Your task to perform on an android device: Open privacy settings Image 0: 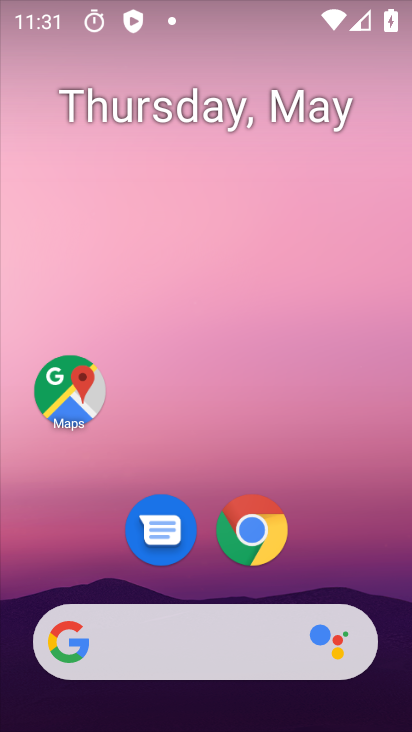
Step 0: drag from (382, 633) to (393, 339)
Your task to perform on an android device: Open privacy settings Image 1: 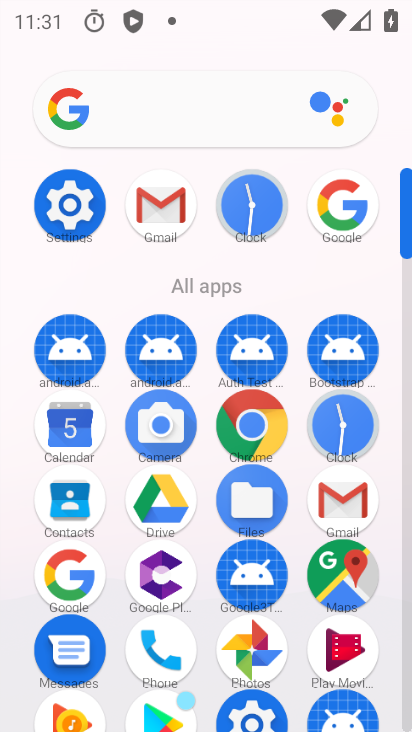
Step 1: click (245, 426)
Your task to perform on an android device: Open privacy settings Image 2: 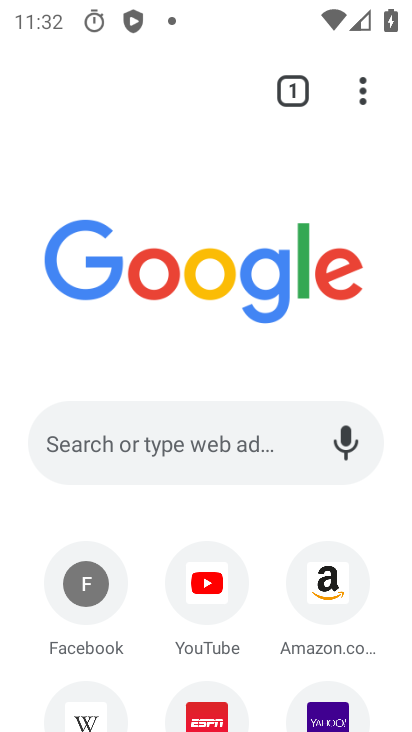
Step 2: click (354, 89)
Your task to perform on an android device: Open privacy settings Image 3: 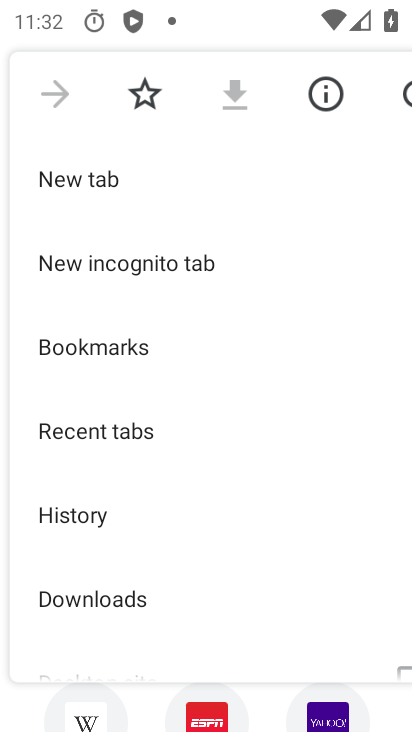
Step 3: drag from (378, 616) to (378, 282)
Your task to perform on an android device: Open privacy settings Image 4: 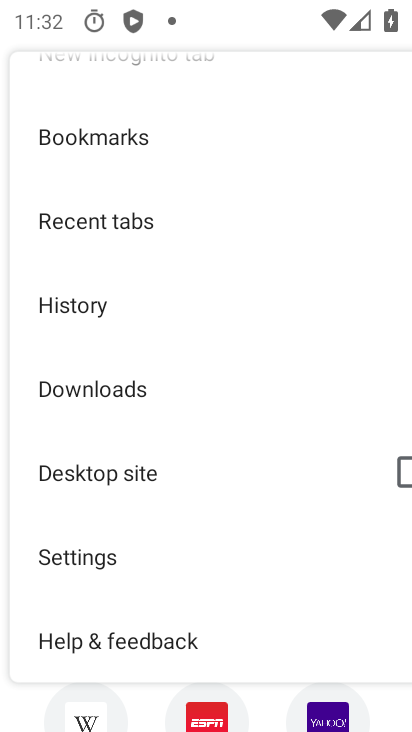
Step 4: drag from (307, 472) to (307, 385)
Your task to perform on an android device: Open privacy settings Image 5: 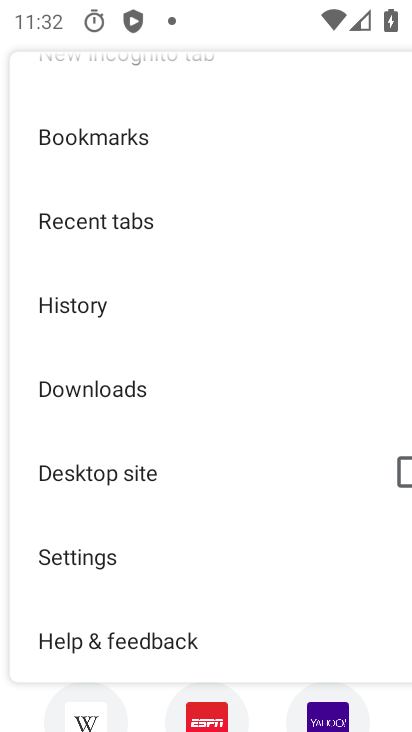
Step 5: drag from (349, 631) to (330, 305)
Your task to perform on an android device: Open privacy settings Image 6: 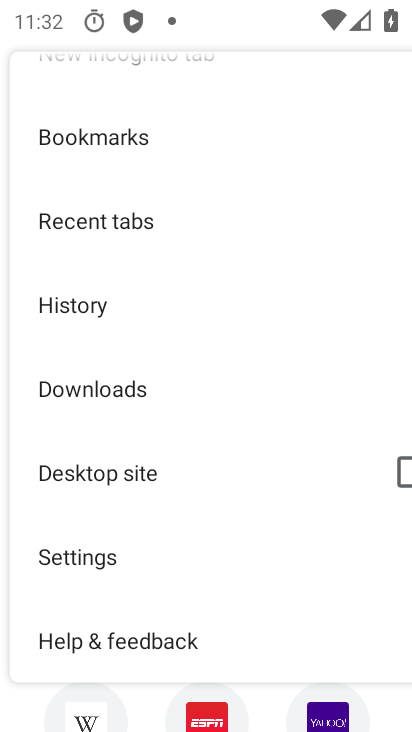
Step 6: drag from (319, 627) to (322, 331)
Your task to perform on an android device: Open privacy settings Image 7: 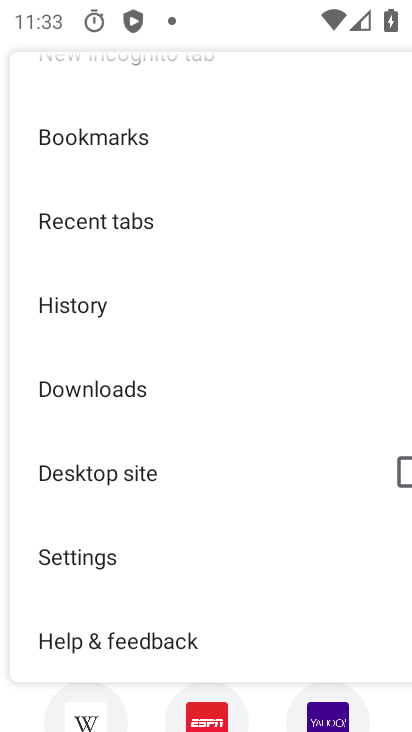
Step 7: drag from (313, 543) to (313, 386)
Your task to perform on an android device: Open privacy settings Image 8: 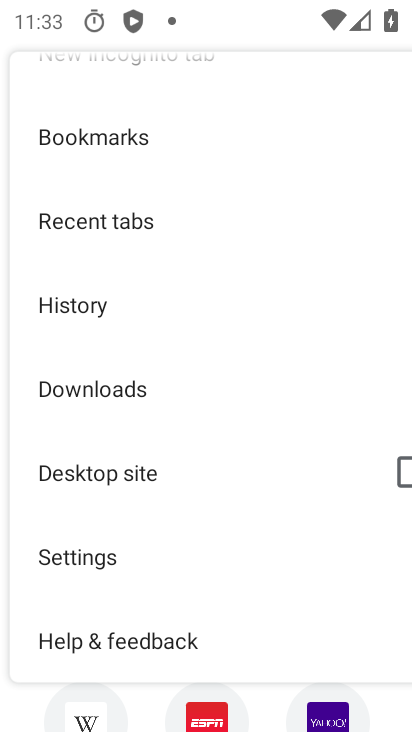
Step 8: drag from (309, 626) to (347, 405)
Your task to perform on an android device: Open privacy settings Image 9: 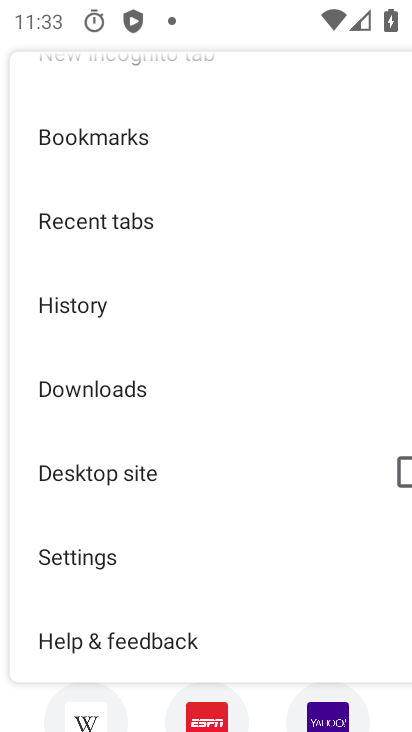
Step 9: click (104, 560)
Your task to perform on an android device: Open privacy settings Image 10: 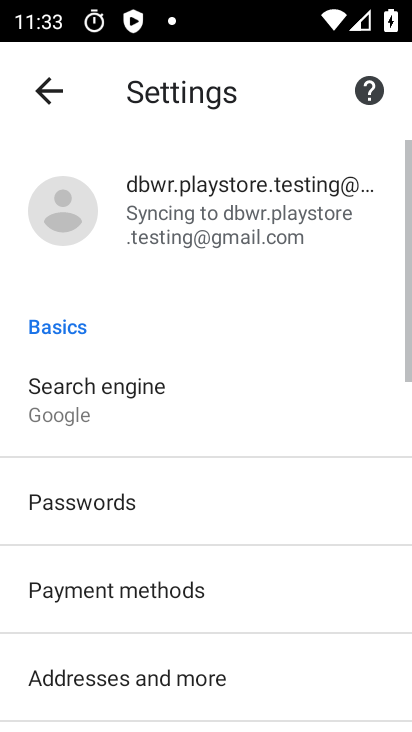
Step 10: drag from (321, 607) to (314, 251)
Your task to perform on an android device: Open privacy settings Image 11: 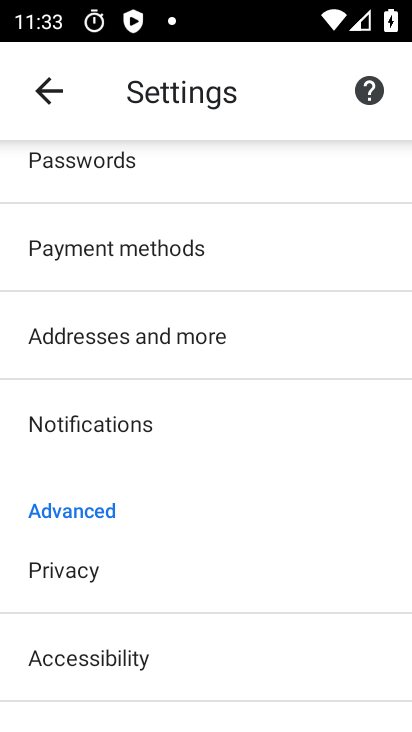
Step 11: drag from (303, 613) to (312, 489)
Your task to perform on an android device: Open privacy settings Image 12: 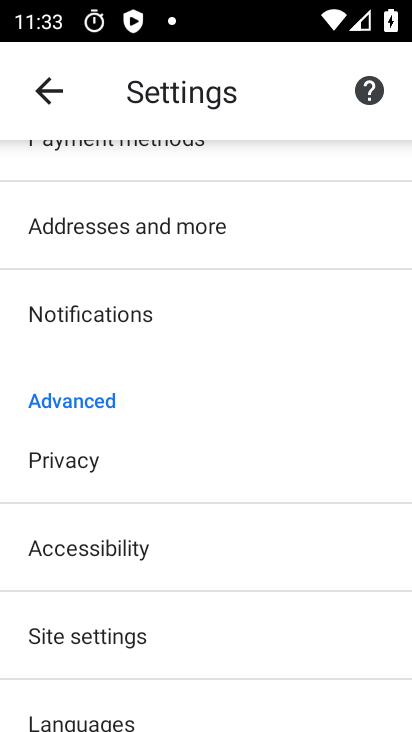
Step 12: click (87, 448)
Your task to perform on an android device: Open privacy settings Image 13: 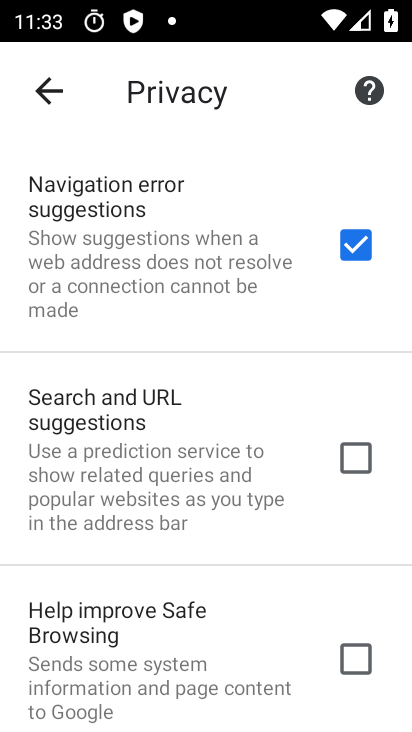
Step 13: task complete